Your task to perform on an android device: turn on data saver in the chrome app Image 0: 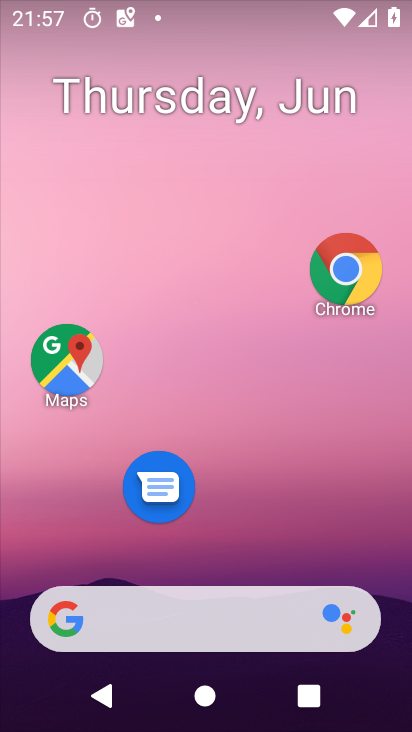
Step 0: click (332, 274)
Your task to perform on an android device: turn on data saver in the chrome app Image 1: 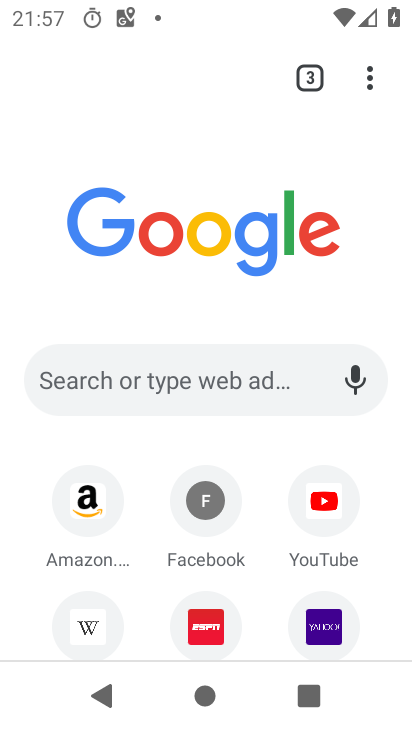
Step 1: drag from (381, 101) to (116, 539)
Your task to perform on an android device: turn on data saver in the chrome app Image 2: 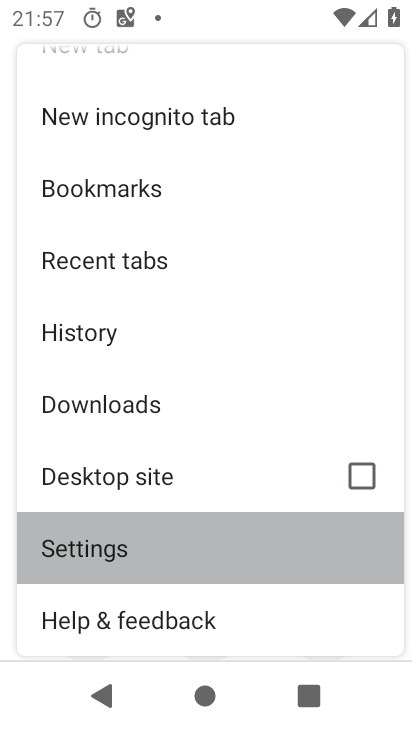
Step 2: click (116, 539)
Your task to perform on an android device: turn on data saver in the chrome app Image 3: 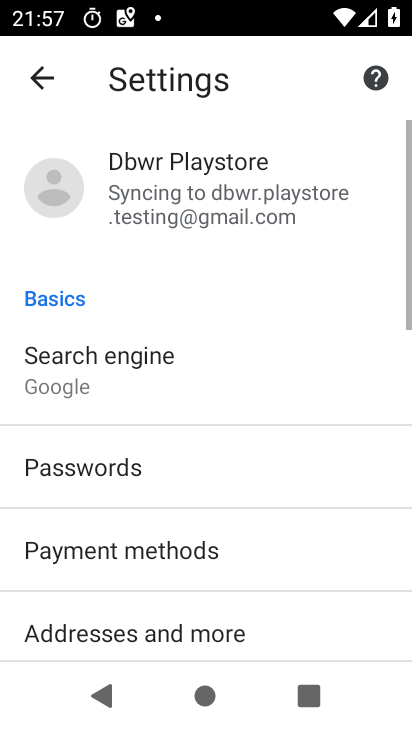
Step 3: drag from (275, 657) to (286, 132)
Your task to perform on an android device: turn on data saver in the chrome app Image 4: 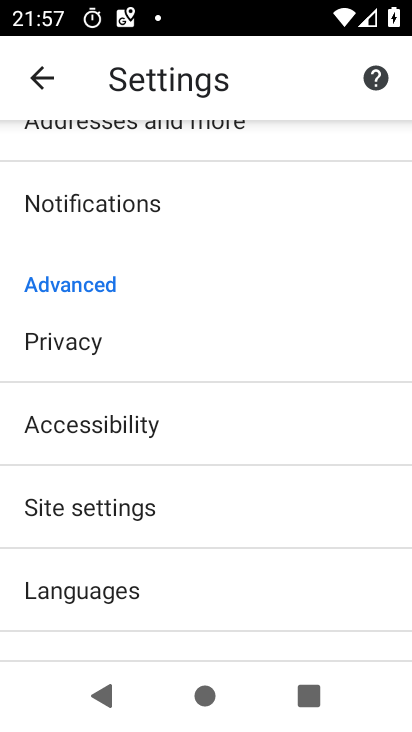
Step 4: drag from (151, 575) to (157, 230)
Your task to perform on an android device: turn on data saver in the chrome app Image 5: 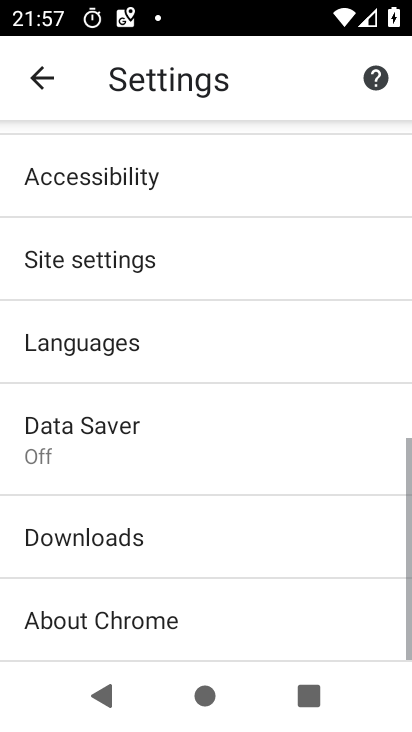
Step 5: click (120, 444)
Your task to perform on an android device: turn on data saver in the chrome app Image 6: 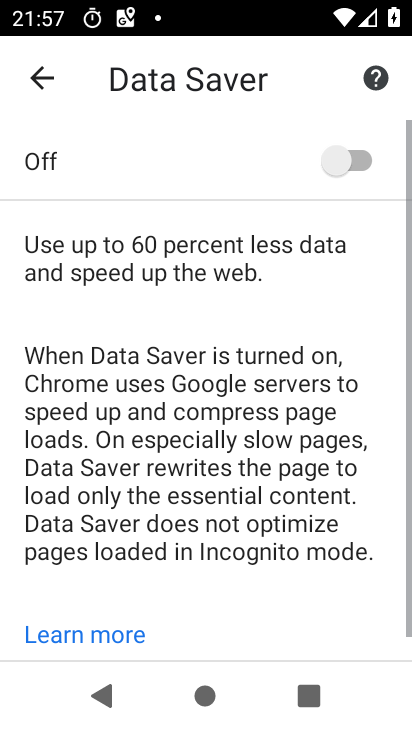
Step 6: drag from (178, 522) to (218, 279)
Your task to perform on an android device: turn on data saver in the chrome app Image 7: 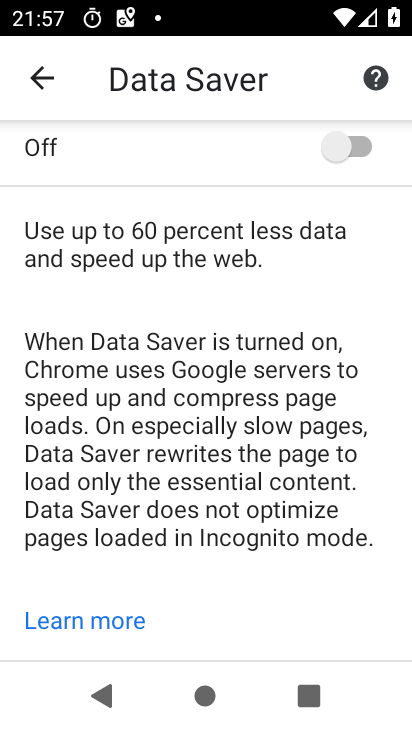
Step 7: click (342, 144)
Your task to perform on an android device: turn on data saver in the chrome app Image 8: 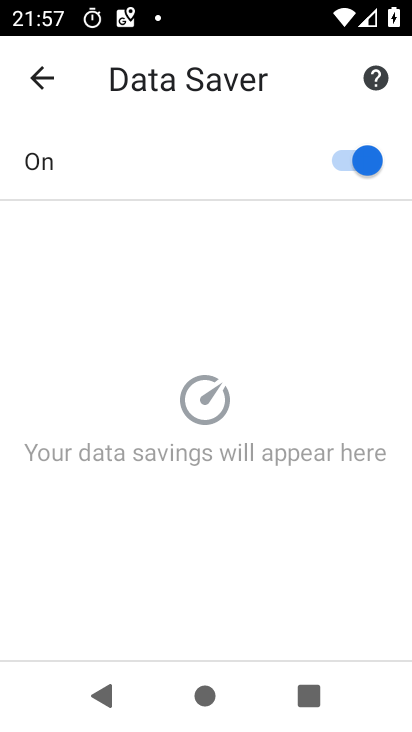
Step 8: task complete